Your task to perform on an android device: turn off notifications in google photos Image 0: 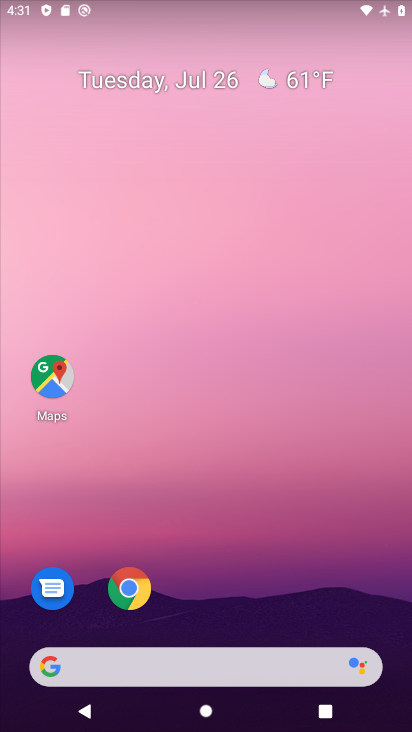
Step 0: drag from (268, 608) to (191, 64)
Your task to perform on an android device: turn off notifications in google photos Image 1: 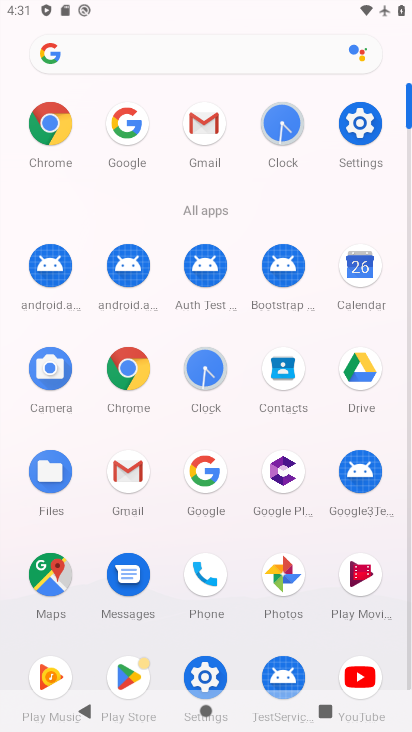
Step 1: click (291, 571)
Your task to perform on an android device: turn off notifications in google photos Image 2: 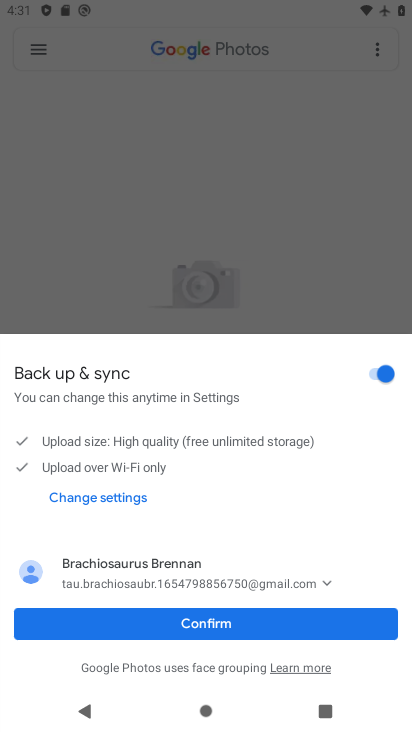
Step 2: click (180, 614)
Your task to perform on an android device: turn off notifications in google photos Image 3: 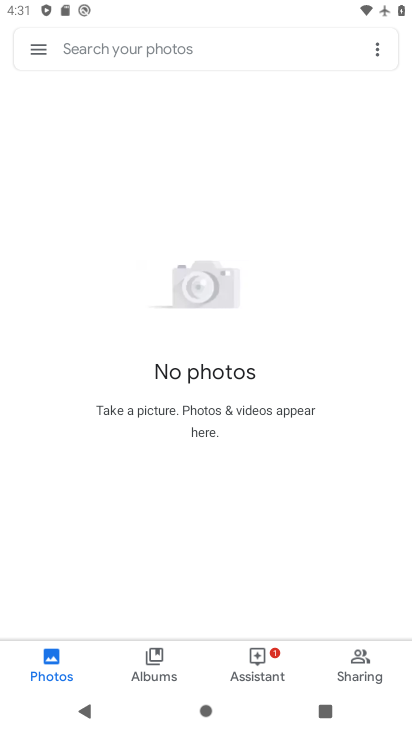
Step 3: click (34, 48)
Your task to perform on an android device: turn off notifications in google photos Image 4: 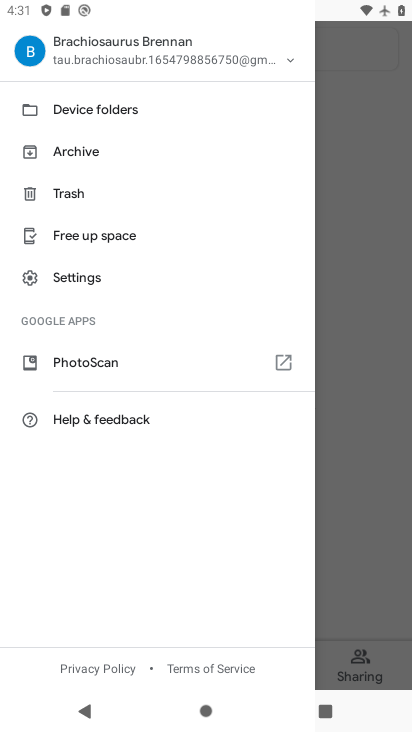
Step 4: click (68, 277)
Your task to perform on an android device: turn off notifications in google photos Image 5: 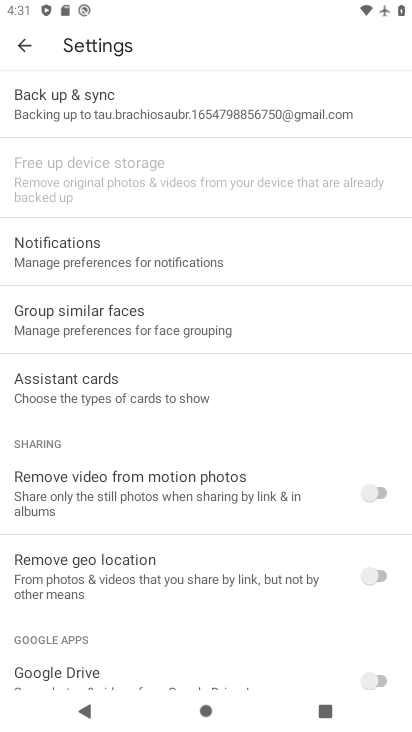
Step 5: click (82, 250)
Your task to perform on an android device: turn off notifications in google photos Image 6: 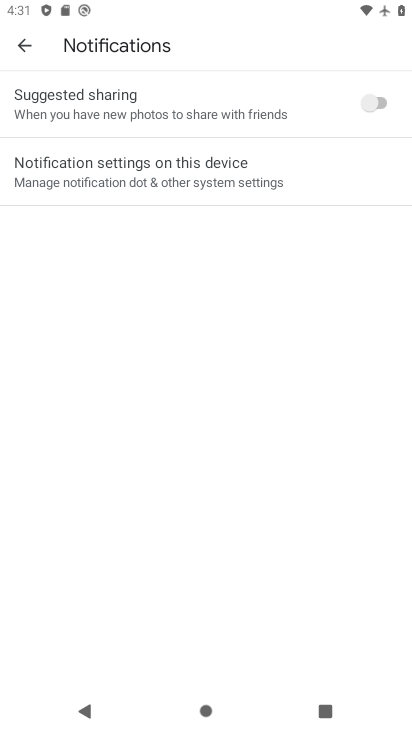
Step 6: click (126, 168)
Your task to perform on an android device: turn off notifications in google photos Image 7: 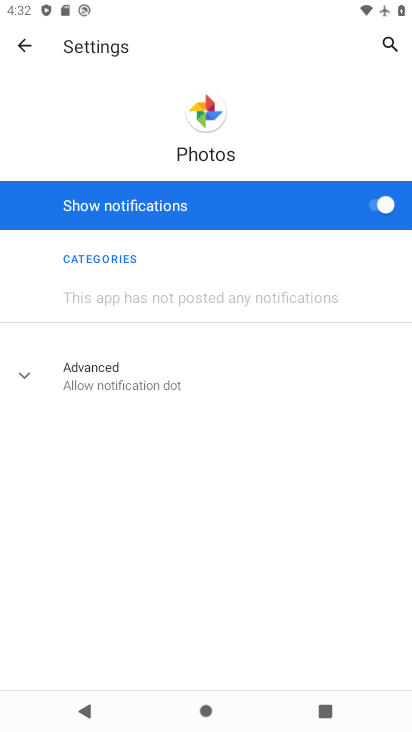
Step 7: click (387, 204)
Your task to perform on an android device: turn off notifications in google photos Image 8: 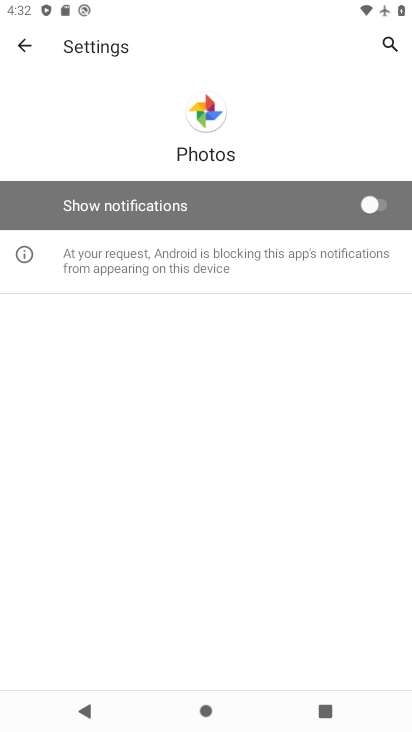
Step 8: task complete